Your task to perform on an android device: open app "Google Play Music" Image 0: 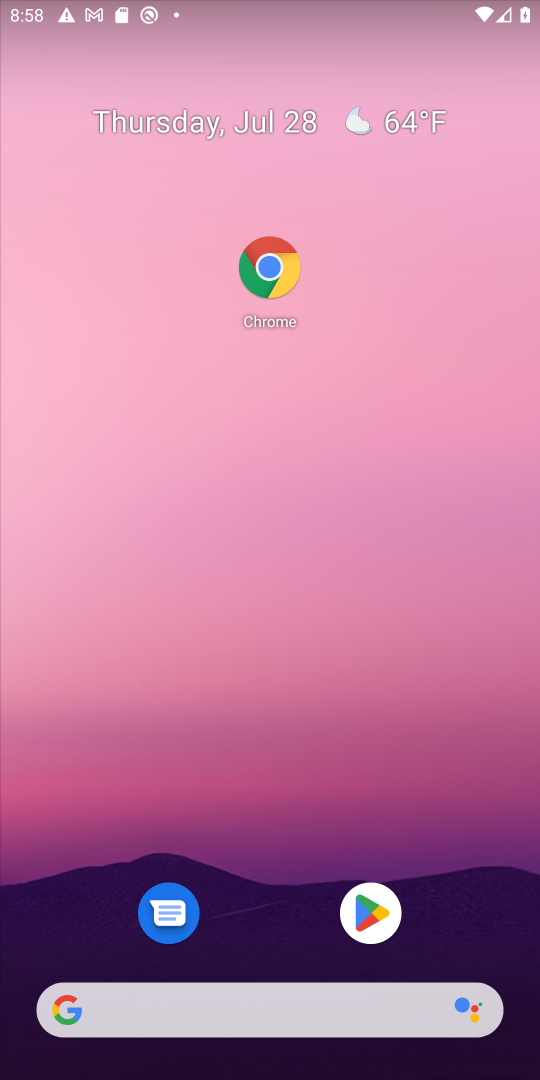
Step 0: click (357, 894)
Your task to perform on an android device: open app "Google Play Music" Image 1: 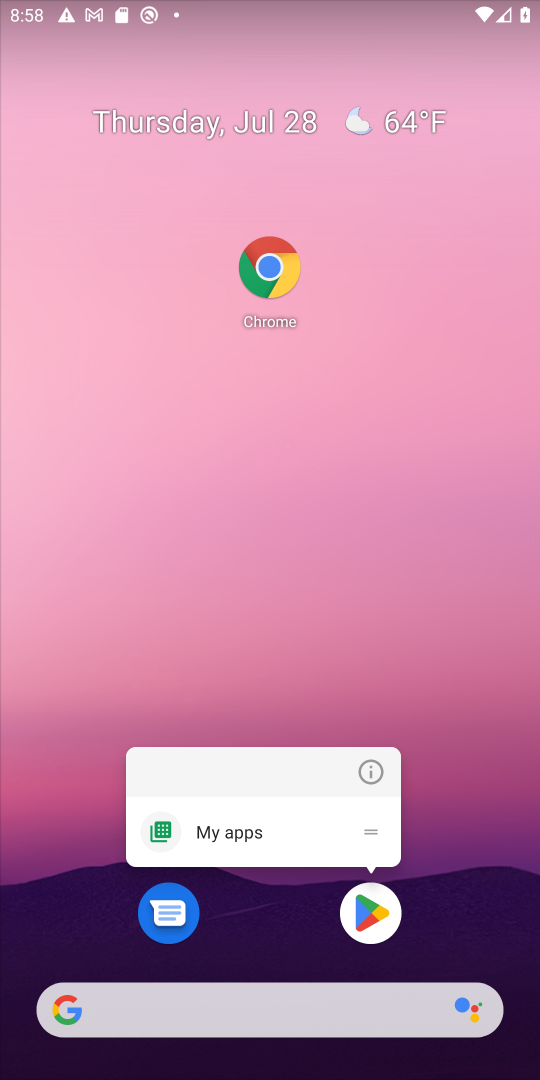
Step 1: click (375, 906)
Your task to perform on an android device: open app "Google Play Music" Image 2: 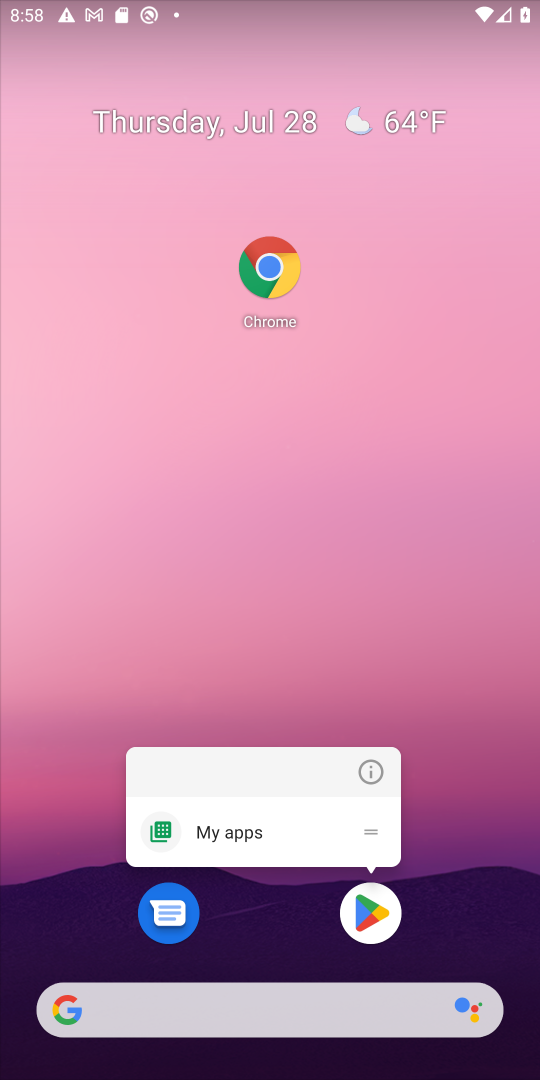
Step 2: click (394, 927)
Your task to perform on an android device: open app "Google Play Music" Image 3: 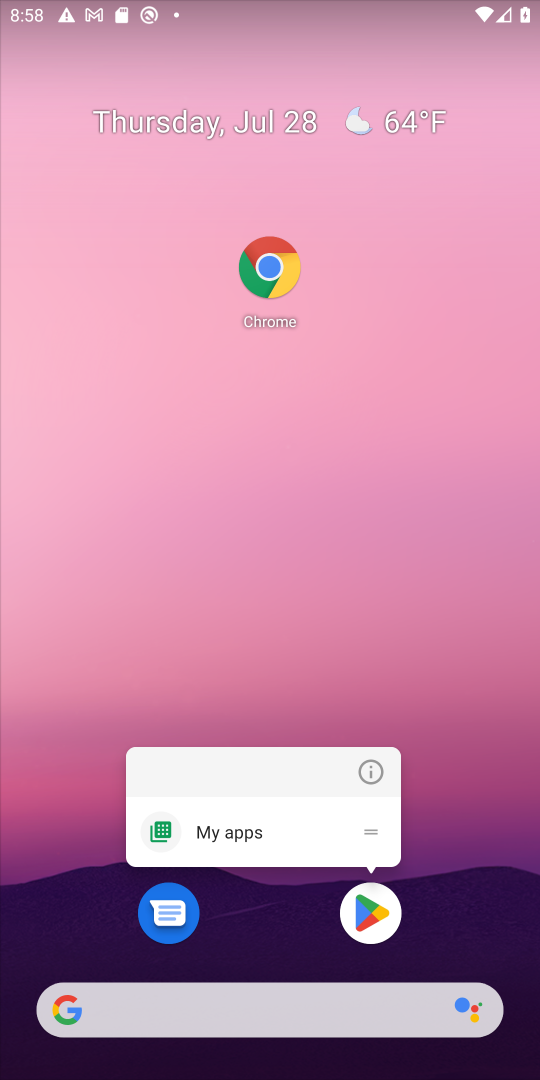
Step 3: click (391, 920)
Your task to perform on an android device: open app "Google Play Music" Image 4: 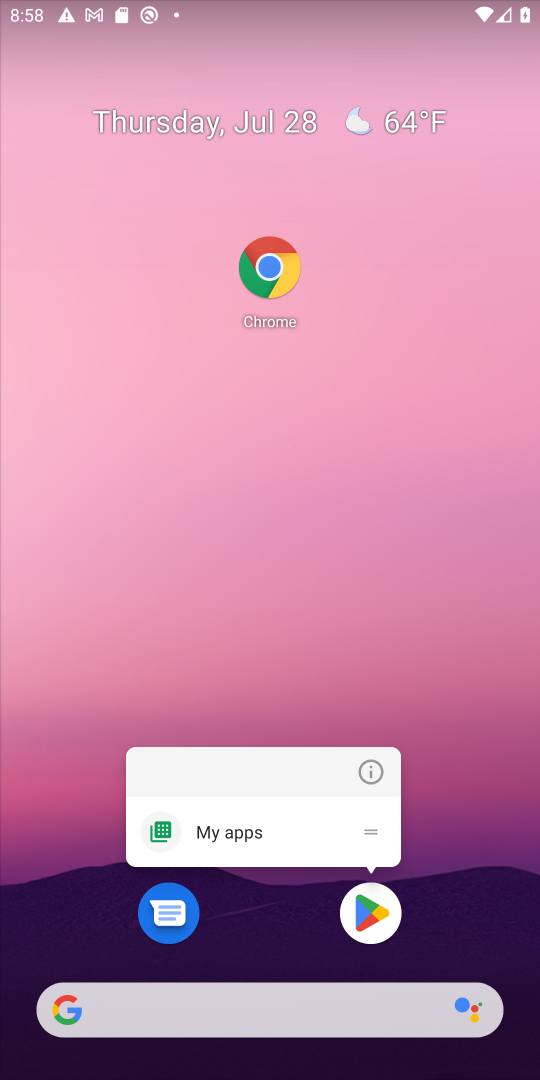
Step 4: click (391, 920)
Your task to perform on an android device: open app "Google Play Music" Image 5: 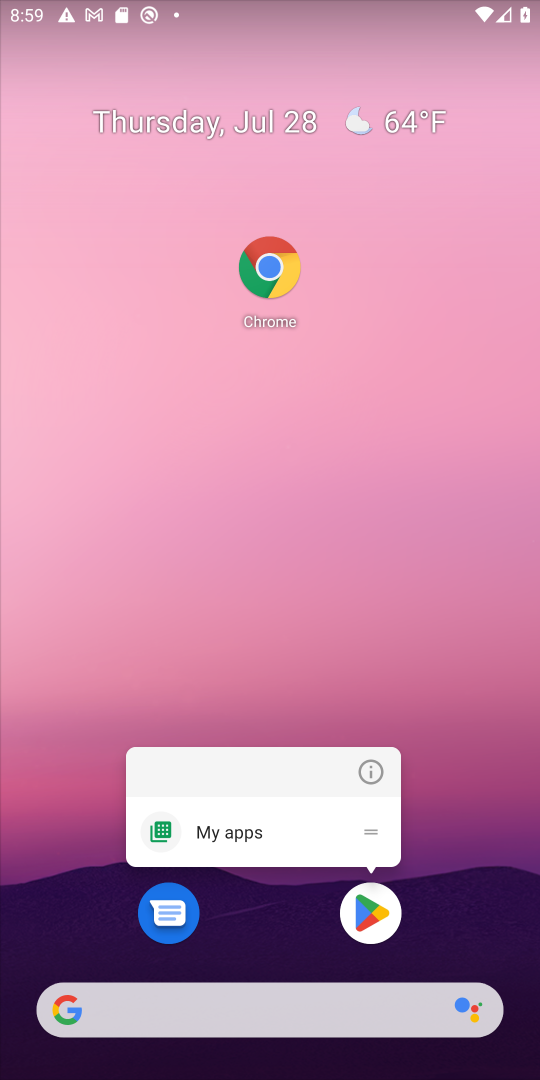
Step 5: click (391, 920)
Your task to perform on an android device: open app "Google Play Music" Image 6: 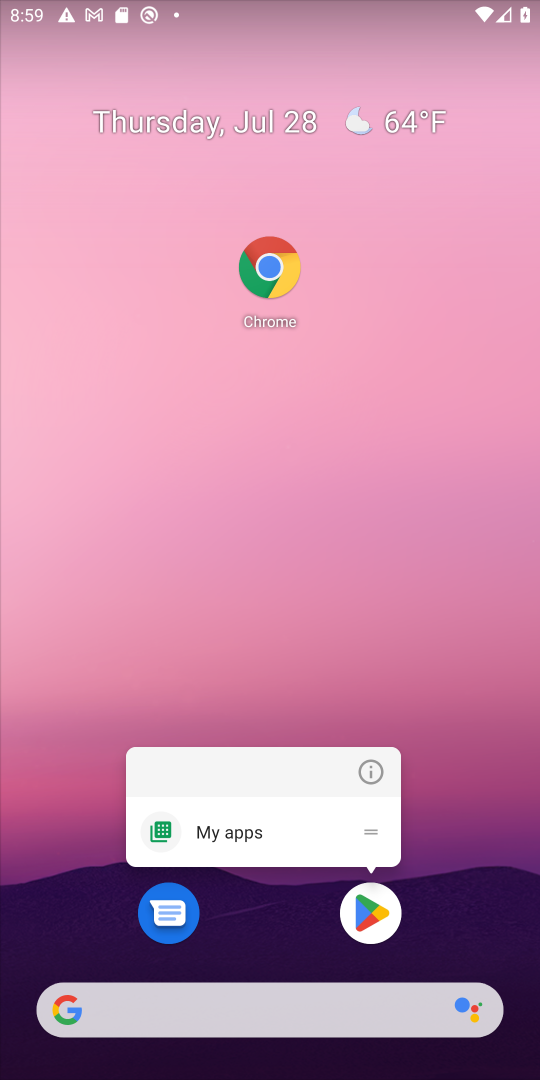
Step 6: click (391, 920)
Your task to perform on an android device: open app "Google Play Music" Image 7: 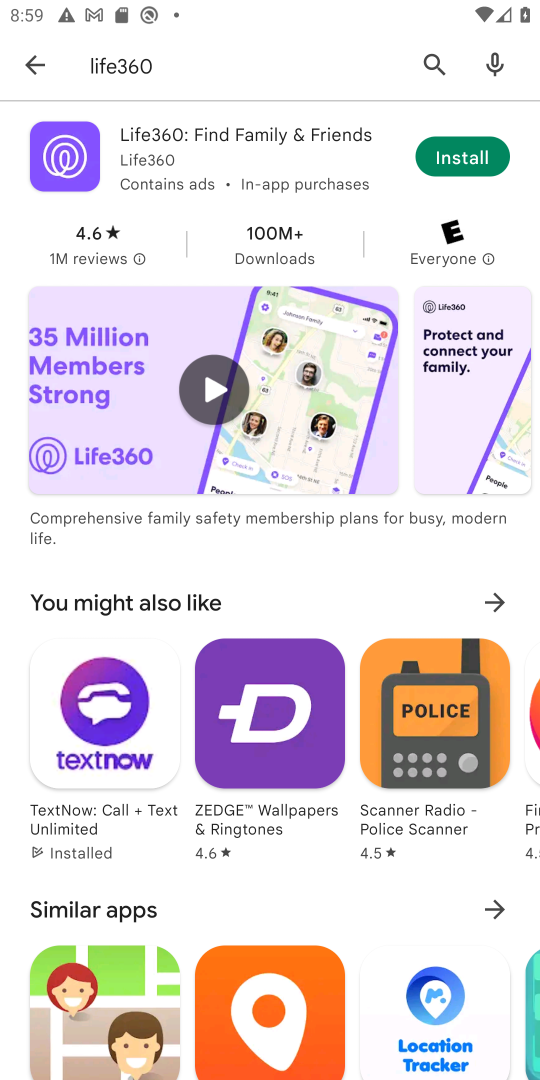
Step 7: click (431, 69)
Your task to perform on an android device: open app "Google Play Music" Image 8: 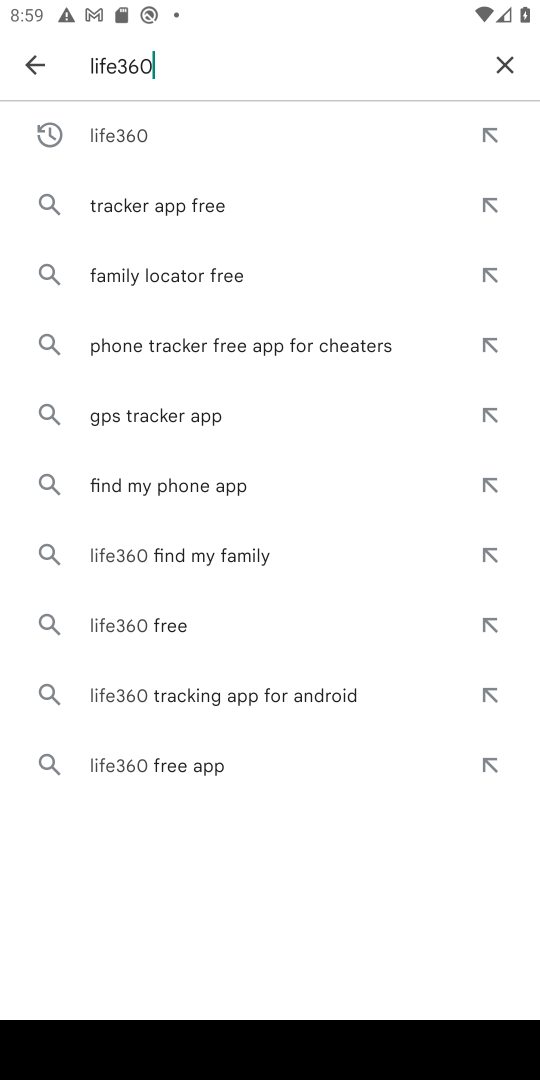
Step 8: click (509, 76)
Your task to perform on an android device: open app "Google Play Music" Image 9: 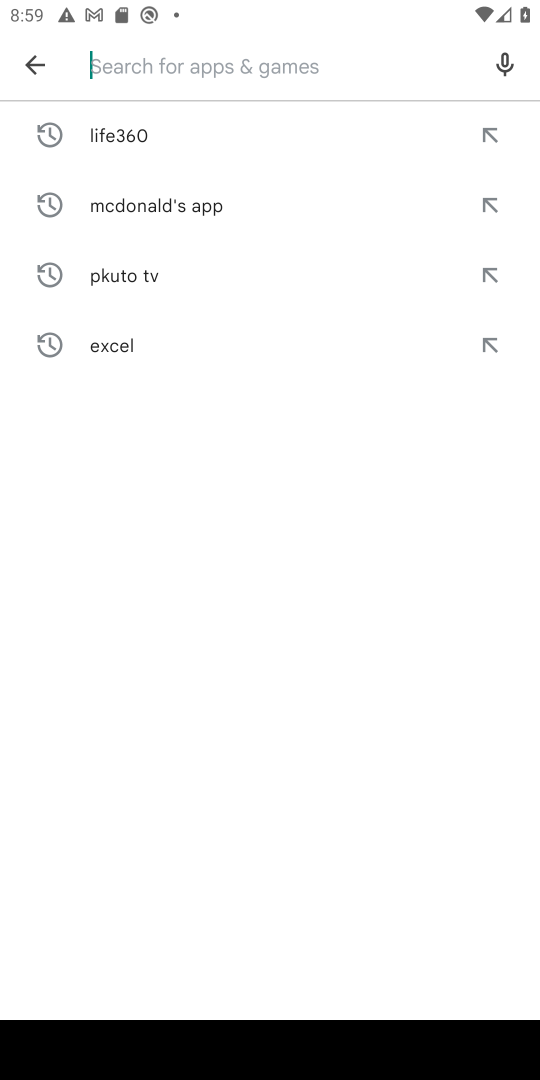
Step 9: type "google play music"
Your task to perform on an android device: open app "Google Play Music" Image 10: 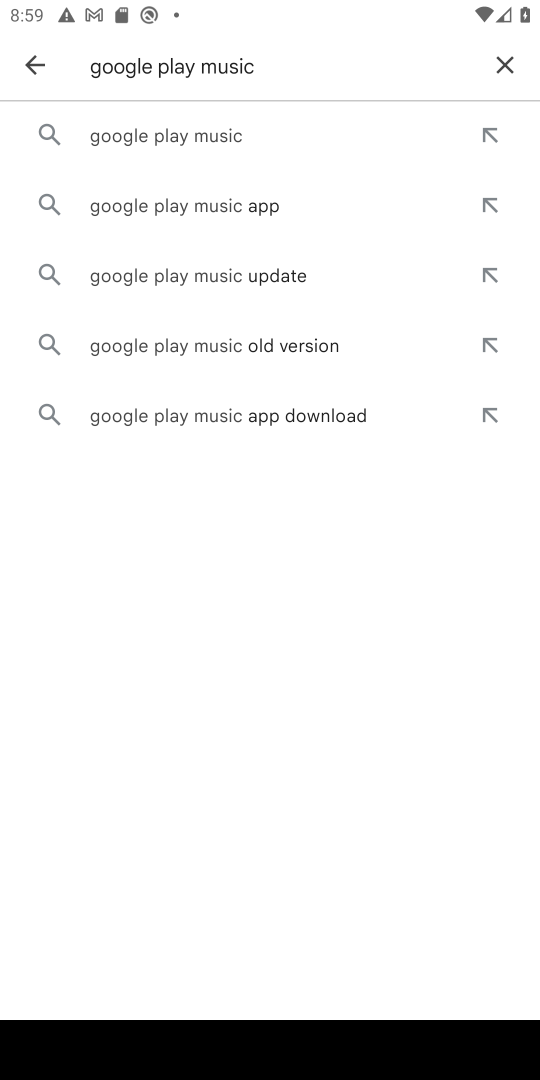
Step 10: click (201, 137)
Your task to perform on an android device: open app "Google Play Music" Image 11: 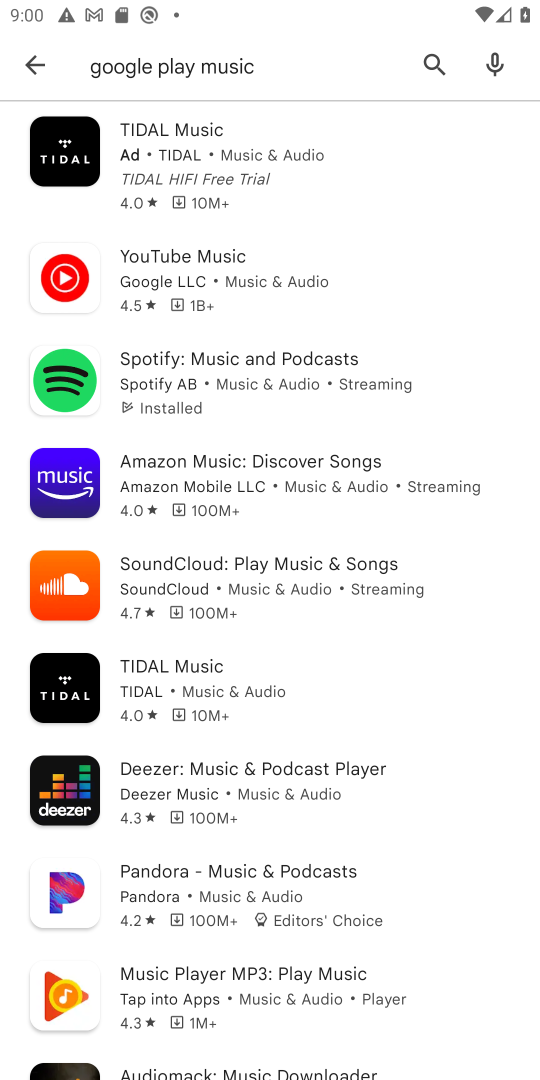
Step 11: task complete